Your task to perform on an android device: turn off smart reply in the gmail app Image 0: 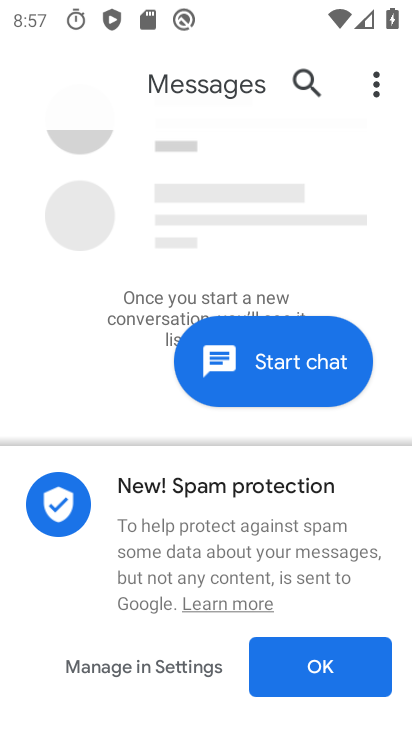
Step 0: press home button
Your task to perform on an android device: turn off smart reply in the gmail app Image 1: 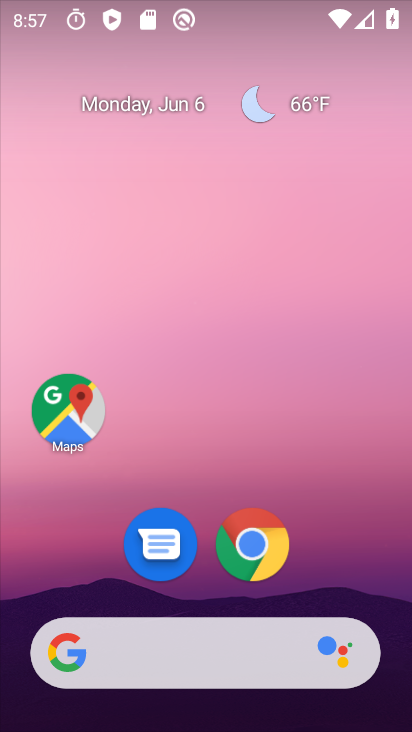
Step 1: drag from (356, 581) to (252, 152)
Your task to perform on an android device: turn off smart reply in the gmail app Image 2: 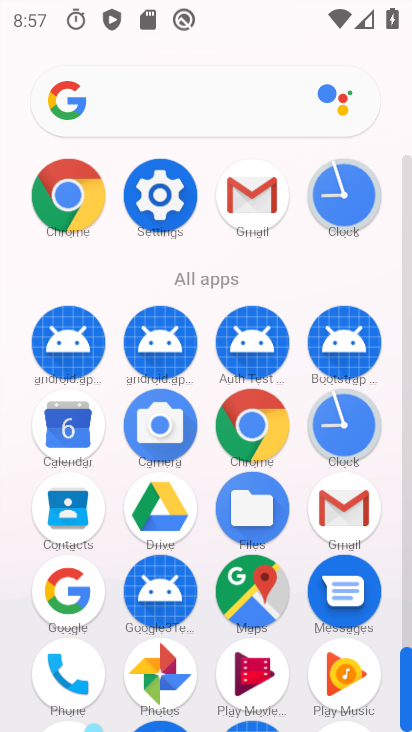
Step 2: click (254, 193)
Your task to perform on an android device: turn off smart reply in the gmail app Image 3: 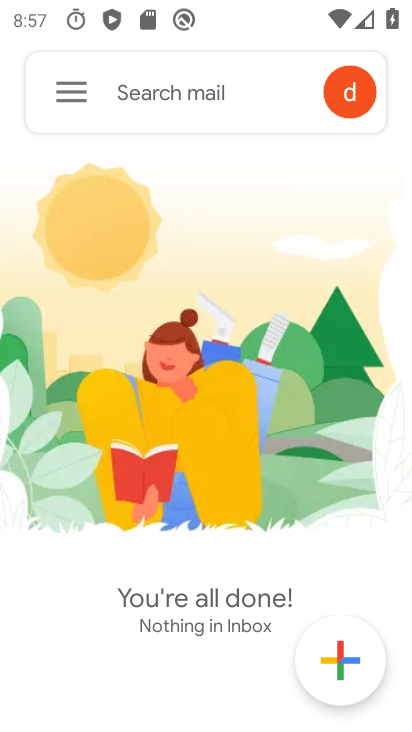
Step 3: click (76, 109)
Your task to perform on an android device: turn off smart reply in the gmail app Image 4: 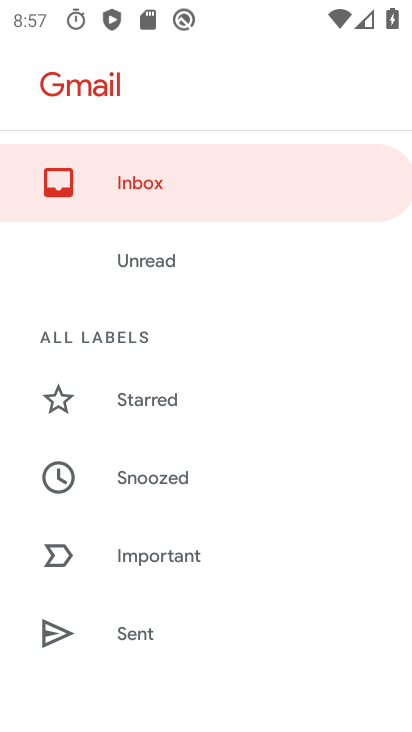
Step 4: drag from (134, 630) to (175, 195)
Your task to perform on an android device: turn off smart reply in the gmail app Image 5: 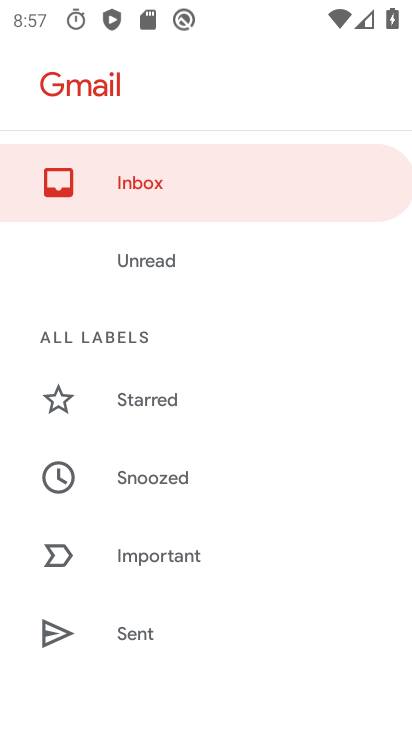
Step 5: drag from (152, 588) to (283, 2)
Your task to perform on an android device: turn off smart reply in the gmail app Image 6: 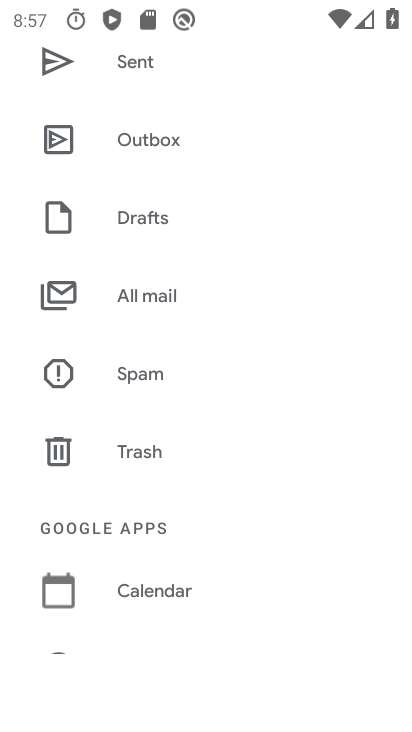
Step 6: drag from (164, 558) to (219, 54)
Your task to perform on an android device: turn off smart reply in the gmail app Image 7: 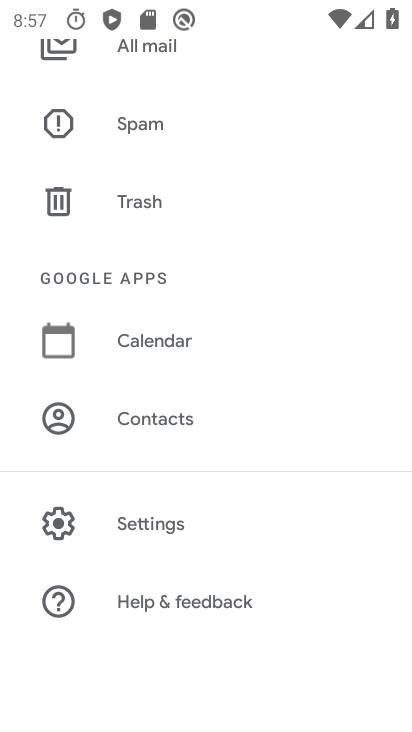
Step 7: click (137, 528)
Your task to perform on an android device: turn off smart reply in the gmail app Image 8: 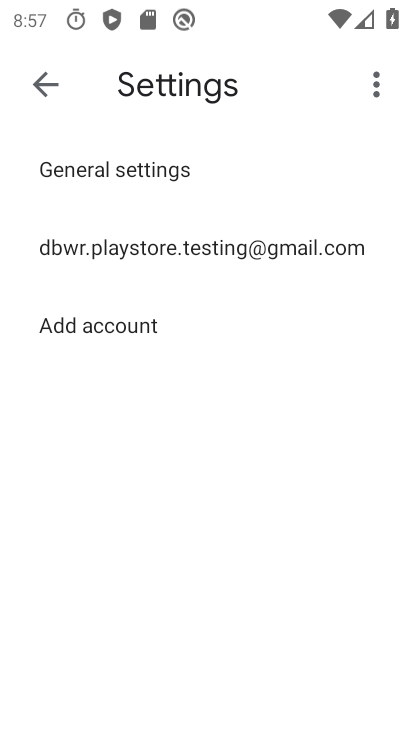
Step 8: click (191, 253)
Your task to perform on an android device: turn off smart reply in the gmail app Image 9: 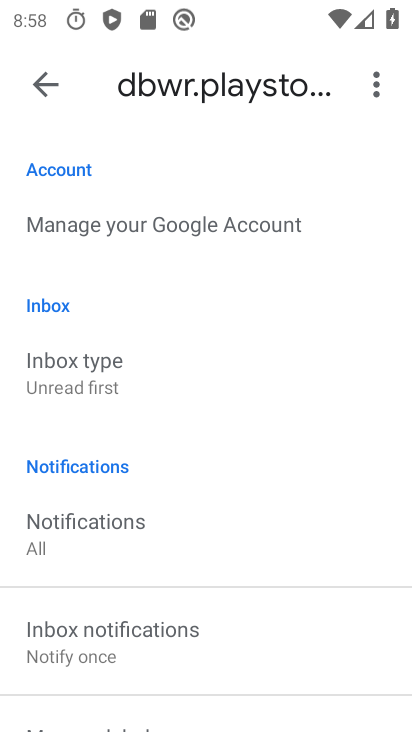
Step 9: drag from (120, 682) to (224, 116)
Your task to perform on an android device: turn off smart reply in the gmail app Image 10: 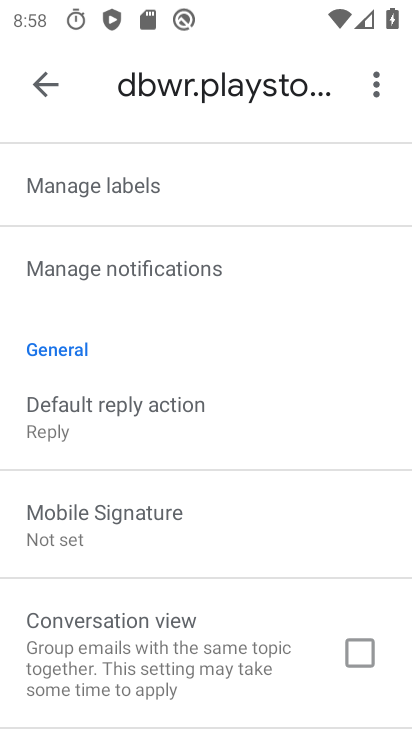
Step 10: drag from (93, 627) to (54, 147)
Your task to perform on an android device: turn off smart reply in the gmail app Image 11: 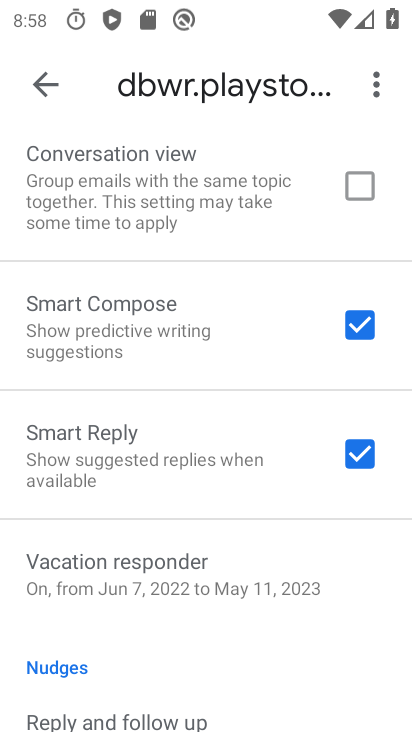
Step 11: click (360, 452)
Your task to perform on an android device: turn off smart reply in the gmail app Image 12: 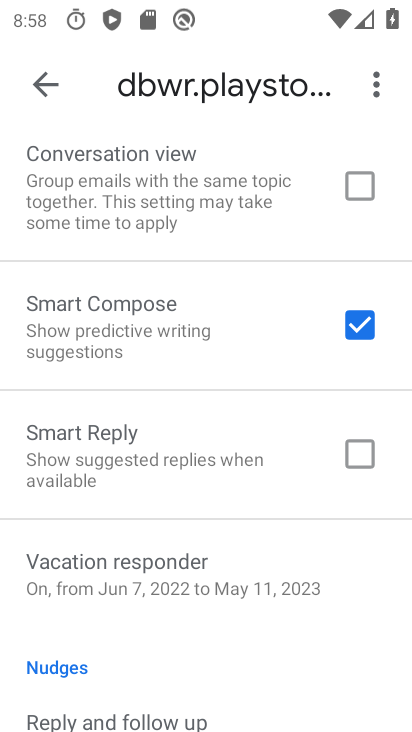
Step 12: task complete